Your task to perform on an android device: snooze an email in the gmail app Image 0: 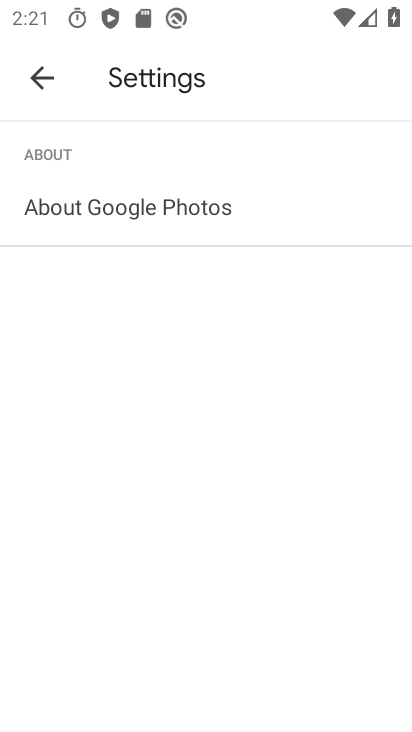
Step 0: press home button
Your task to perform on an android device: snooze an email in the gmail app Image 1: 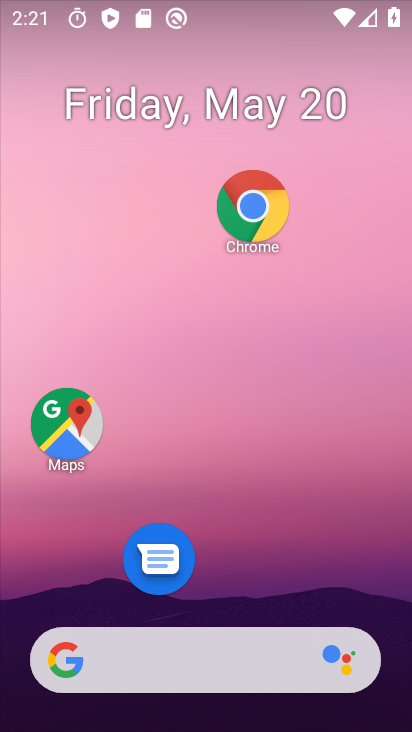
Step 1: drag from (203, 605) to (220, 16)
Your task to perform on an android device: snooze an email in the gmail app Image 2: 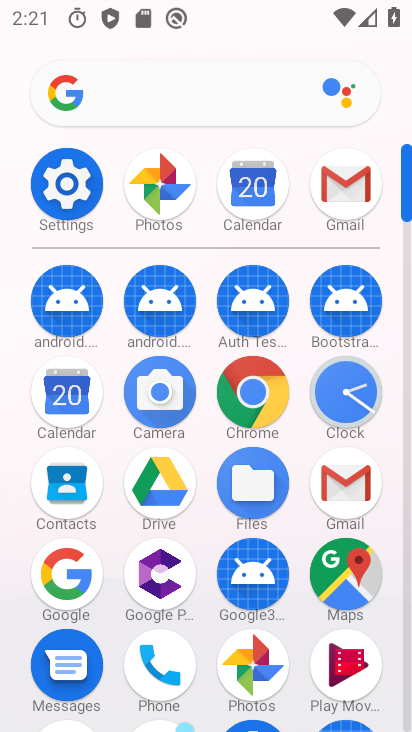
Step 2: click (355, 473)
Your task to perform on an android device: snooze an email in the gmail app Image 3: 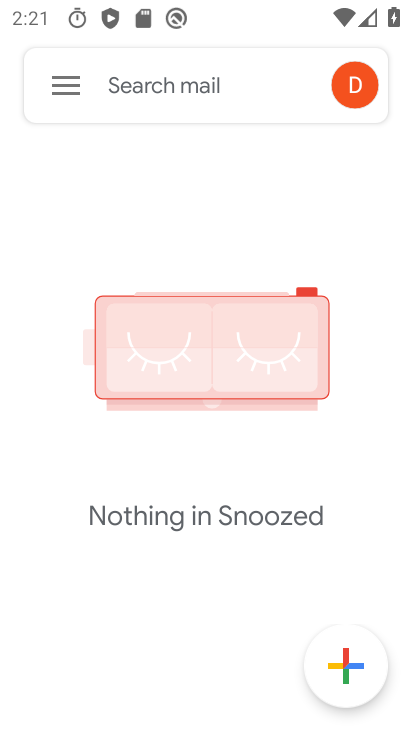
Step 3: click (54, 81)
Your task to perform on an android device: snooze an email in the gmail app Image 4: 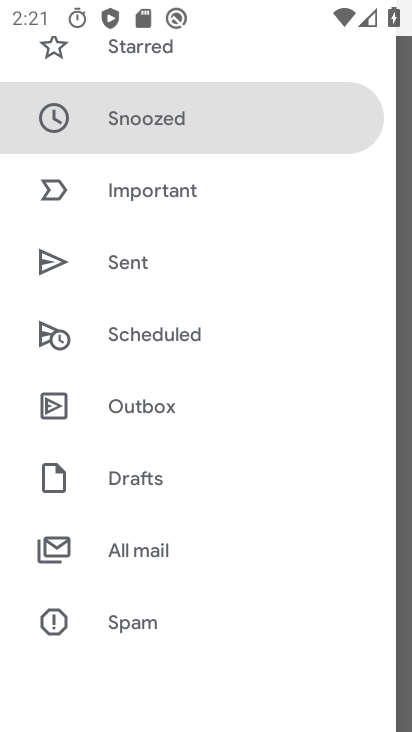
Step 4: click (144, 136)
Your task to perform on an android device: snooze an email in the gmail app Image 5: 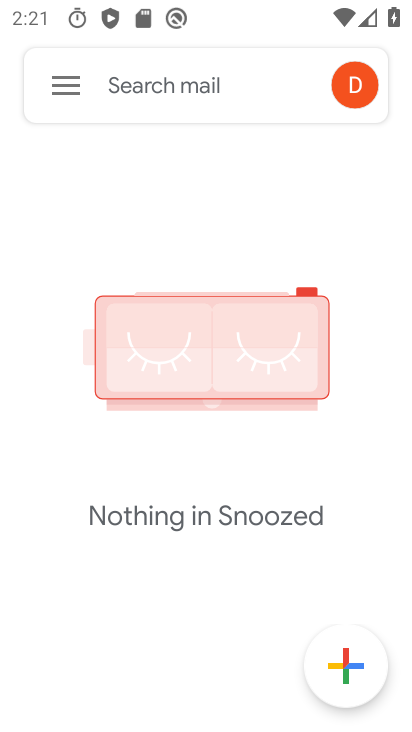
Step 5: click (36, 66)
Your task to perform on an android device: snooze an email in the gmail app Image 6: 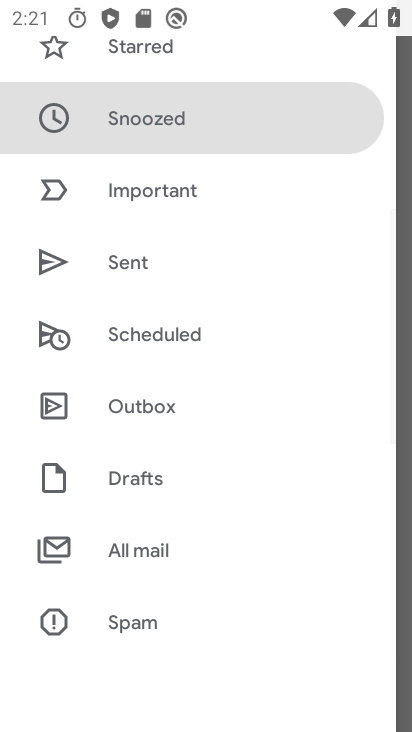
Step 6: drag from (149, 256) to (156, 128)
Your task to perform on an android device: snooze an email in the gmail app Image 7: 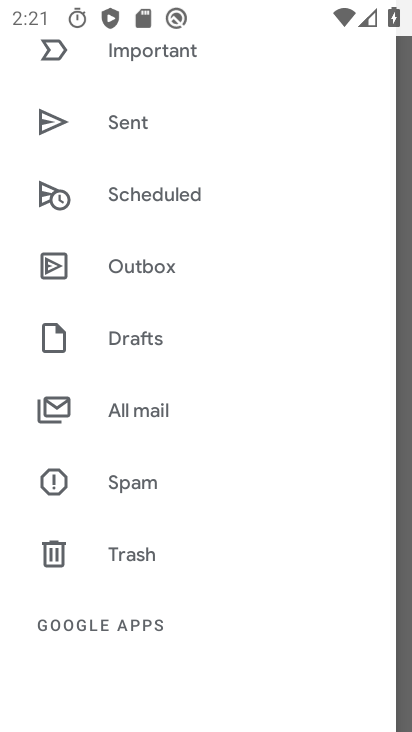
Step 7: click (119, 417)
Your task to perform on an android device: snooze an email in the gmail app Image 8: 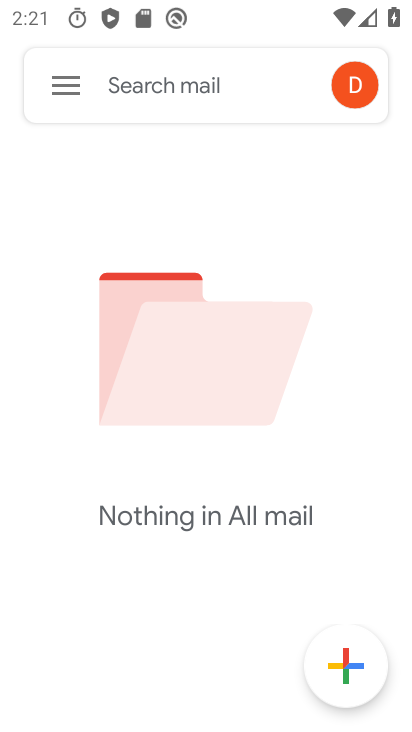
Step 8: task complete